Your task to perform on an android device: open app "Clock" (install if not already installed) Image 0: 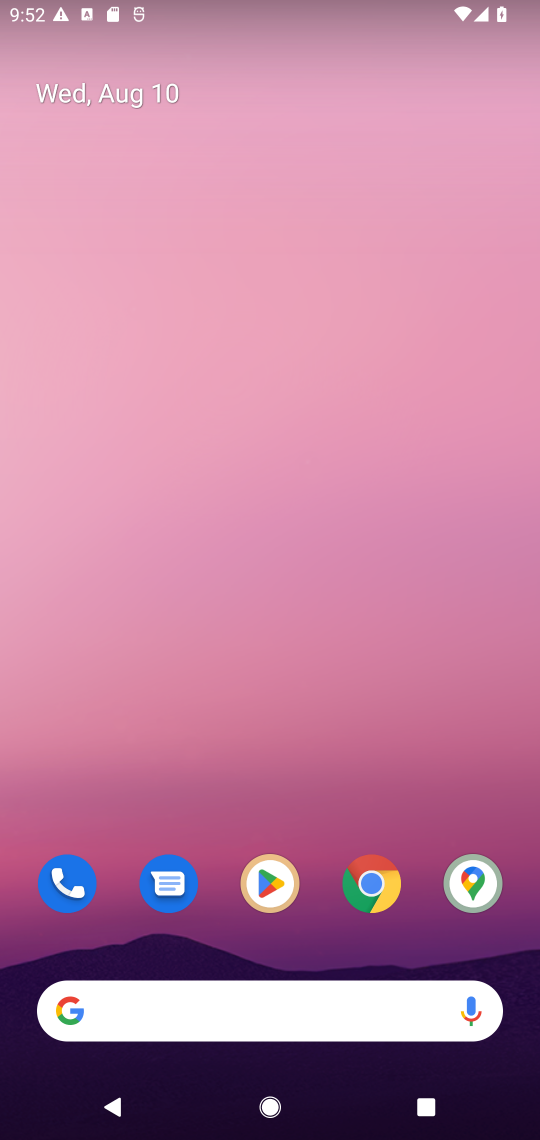
Step 0: drag from (319, 393) to (321, 122)
Your task to perform on an android device: open app "Clock" (install if not already installed) Image 1: 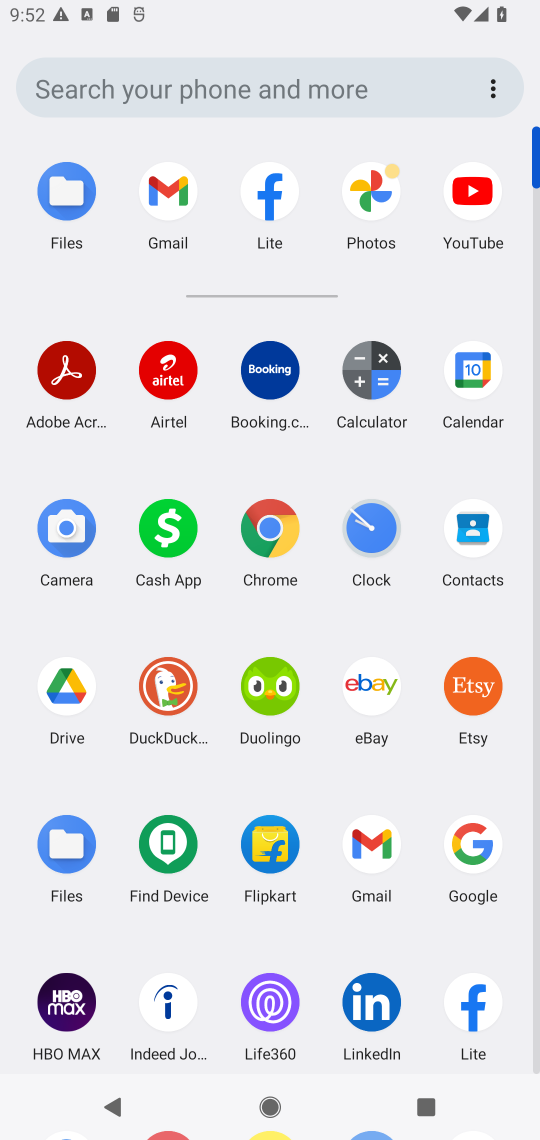
Step 1: click (365, 533)
Your task to perform on an android device: open app "Clock" (install if not already installed) Image 2: 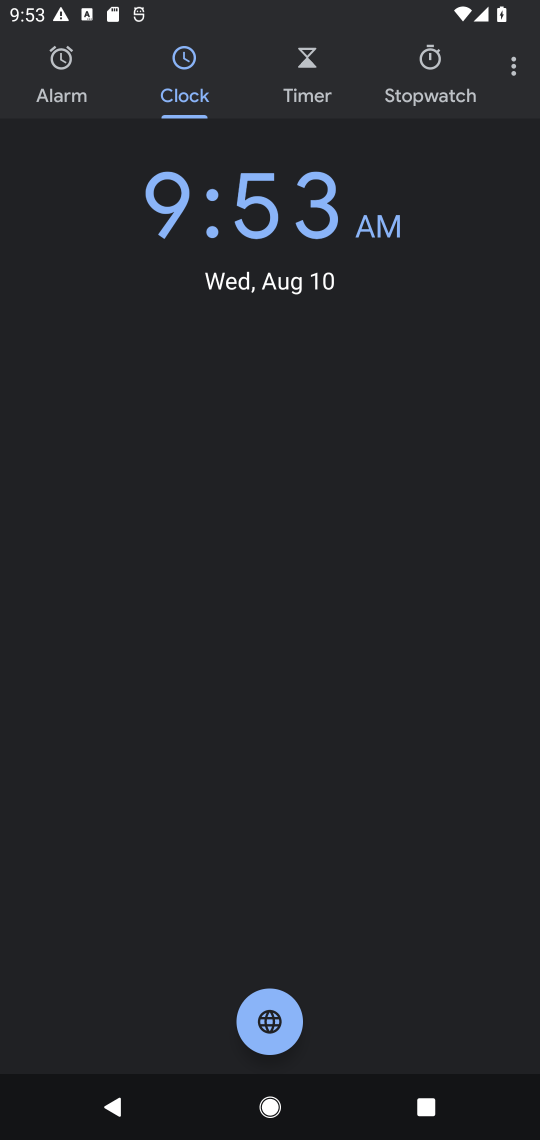
Step 2: task complete